Your task to perform on an android device: Open Yahoo.com Image 0: 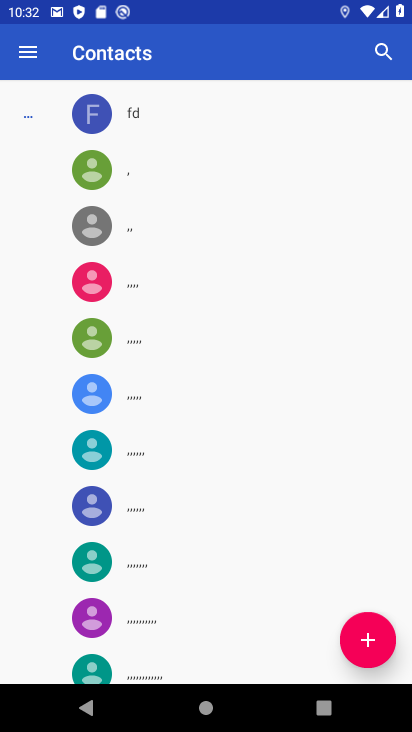
Step 0: drag from (292, 526) to (295, 349)
Your task to perform on an android device: Open Yahoo.com Image 1: 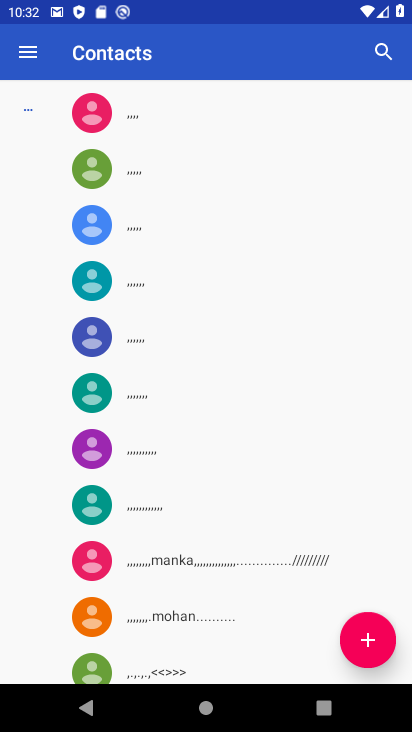
Step 1: press home button
Your task to perform on an android device: Open Yahoo.com Image 2: 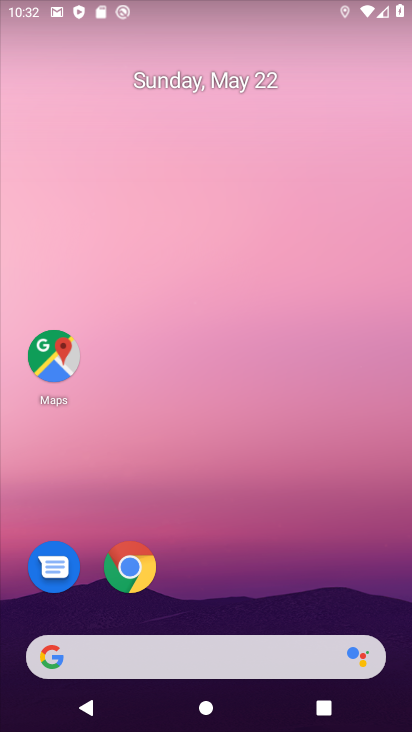
Step 2: drag from (308, 571) to (313, 174)
Your task to perform on an android device: Open Yahoo.com Image 3: 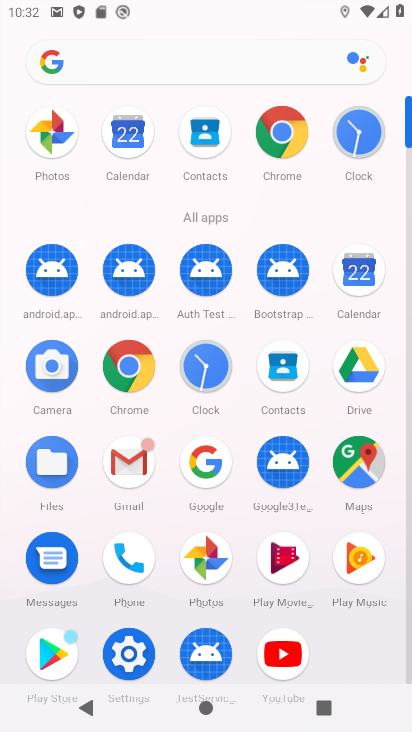
Step 3: click (279, 147)
Your task to perform on an android device: Open Yahoo.com Image 4: 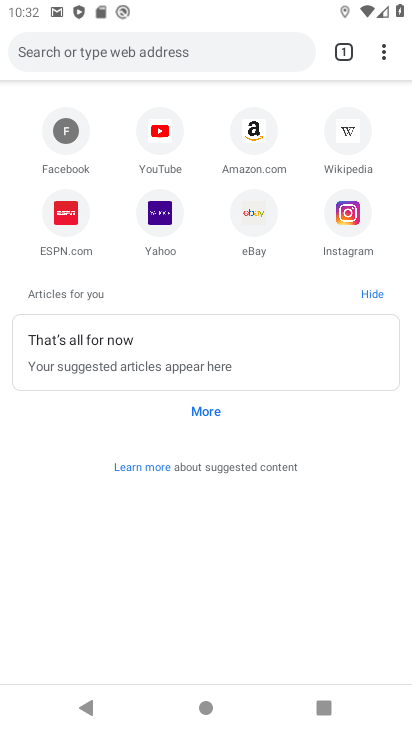
Step 4: click (180, 57)
Your task to perform on an android device: Open Yahoo.com Image 5: 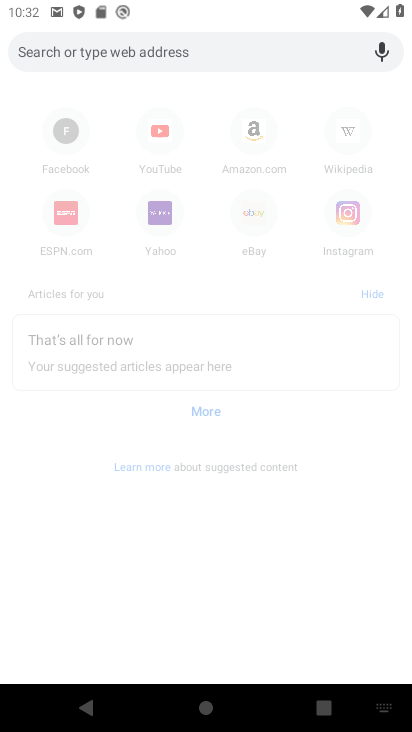
Step 5: type "open yahoo.com"
Your task to perform on an android device: Open Yahoo.com Image 6: 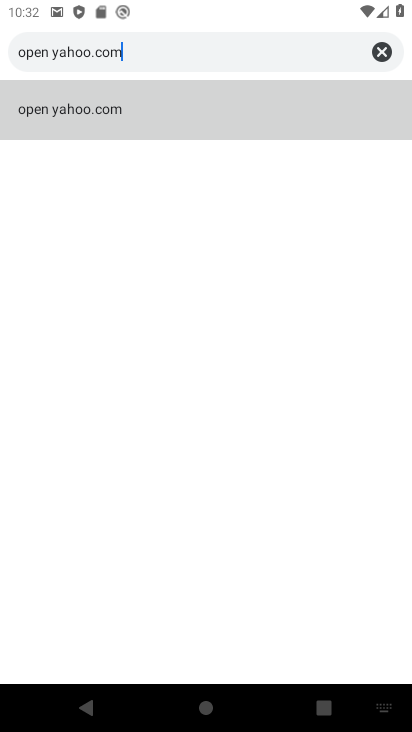
Step 6: click (21, 115)
Your task to perform on an android device: Open Yahoo.com Image 7: 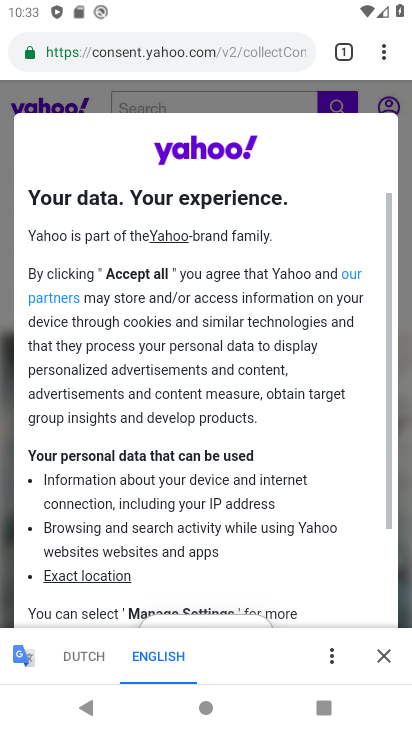
Step 7: task complete